Your task to perform on an android device: View the shopping cart on bestbuy. Image 0: 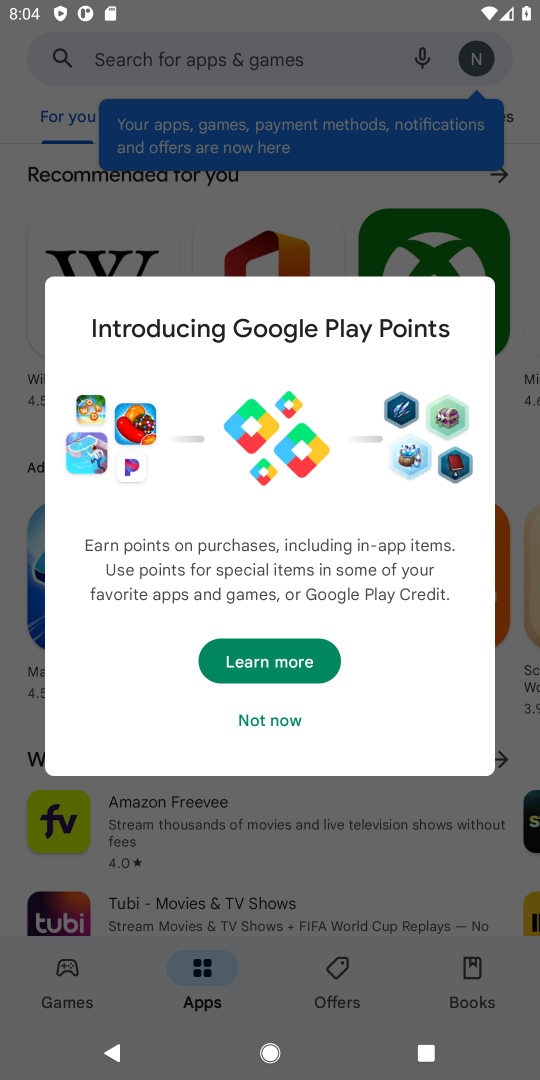
Step 0: press home button
Your task to perform on an android device: View the shopping cart on bestbuy. Image 1: 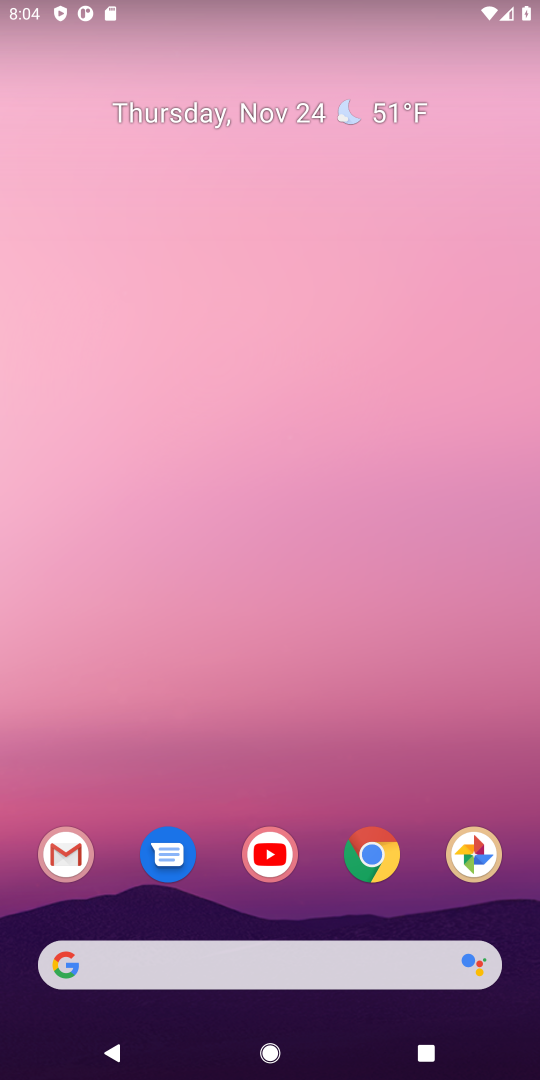
Step 1: click (377, 858)
Your task to perform on an android device: View the shopping cart on bestbuy. Image 2: 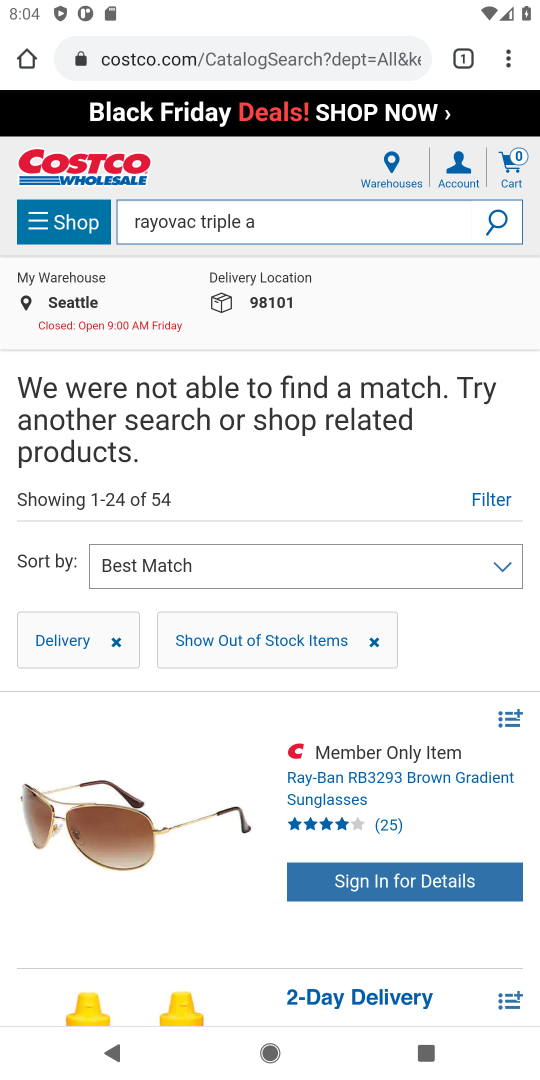
Step 2: click (243, 56)
Your task to perform on an android device: View the shopping cart on bestbuy. Image 3: 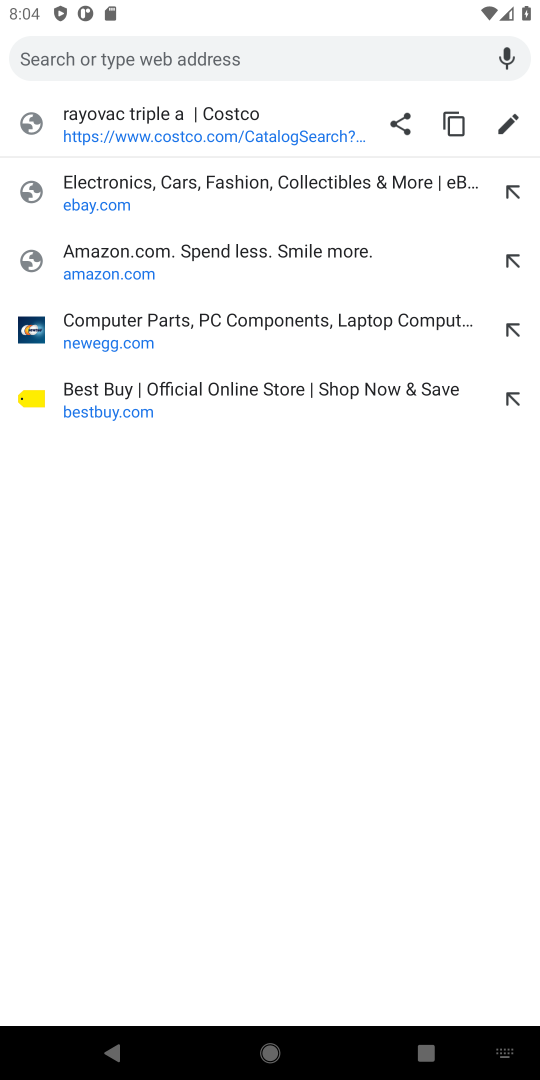
Step 3: click (70, 391)
Your task to perform on an android device: View the shopping cart on bestbuy. Image 4: 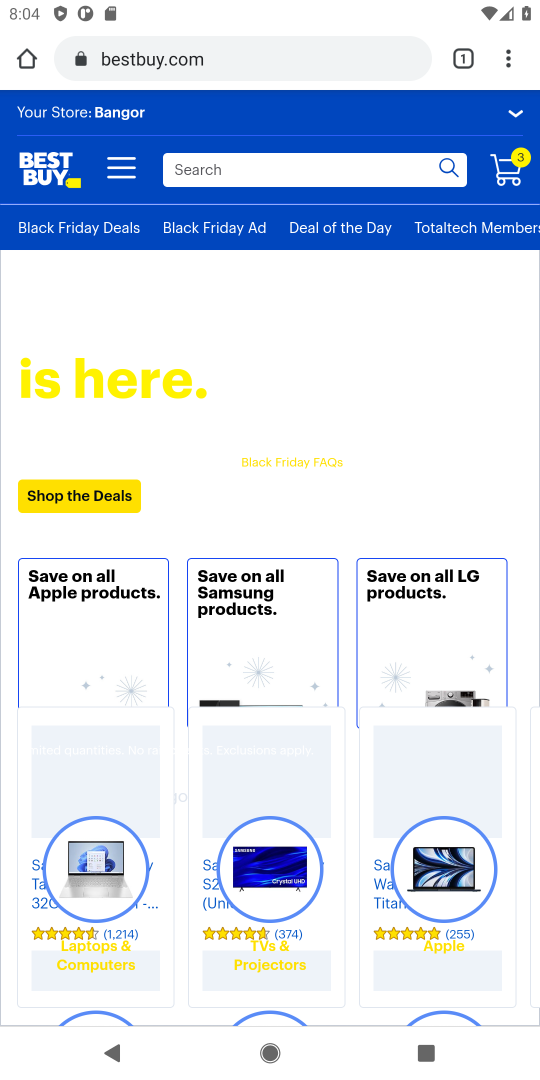
Step 4: click (502, 173)
Your task to perform on an android device: View the shopping cart on bestbuy. Image 5: 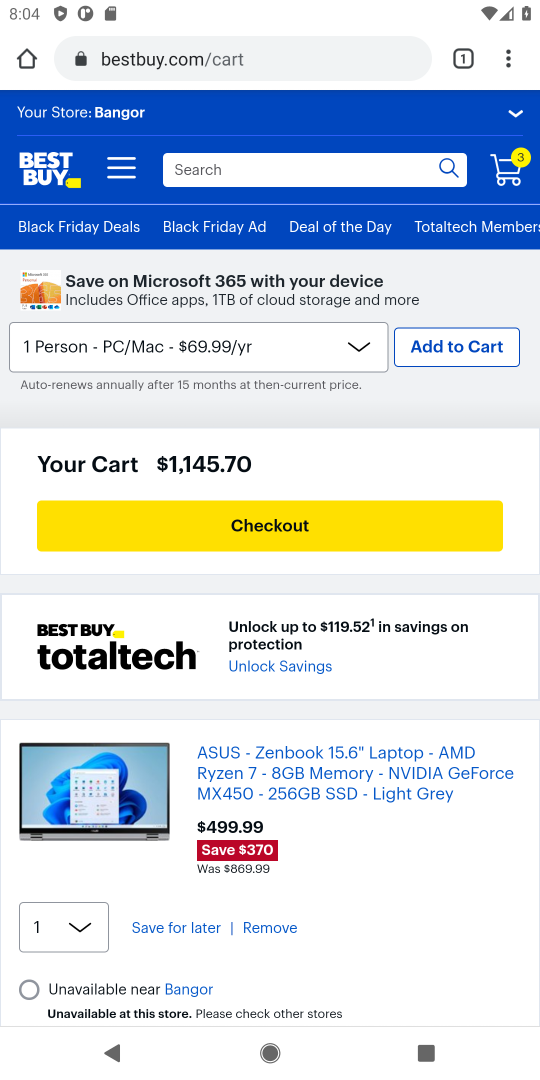
Step 5: task complete